Your task to perform on an android device: Open the calendar and show me this week's events? Image 0: 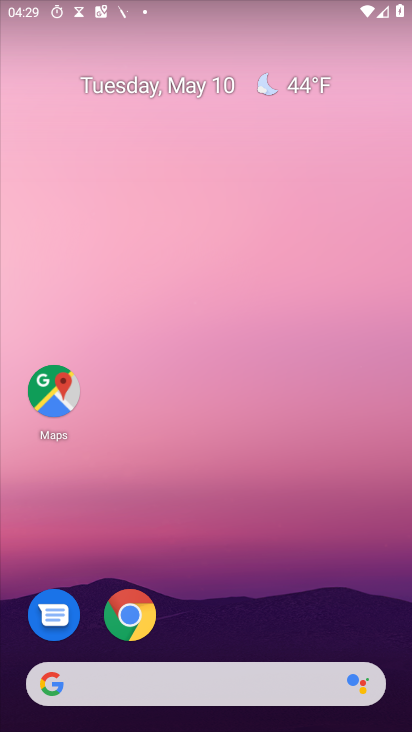
Step 0: drag from (292, 661) to (214, 6)
Your task to perform on an android device: Open the calendar and show me this week's events? Image 1: 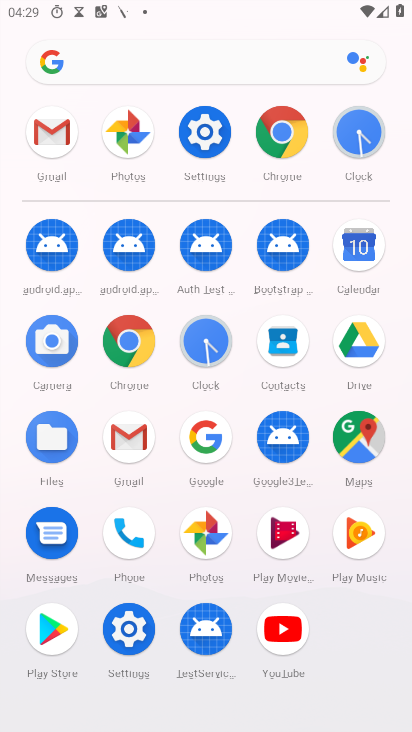
Step 1: click (355, 250)
Your task to perform on an android device: Open the calendar and show me this week's events? Image 2: 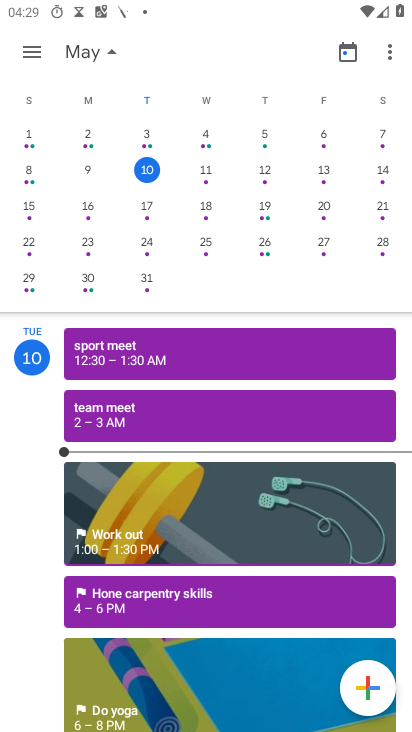
Step 2: click (210, 172)
Your task to perform on an android device: Open the calendar and show me this week's events? Image 3: 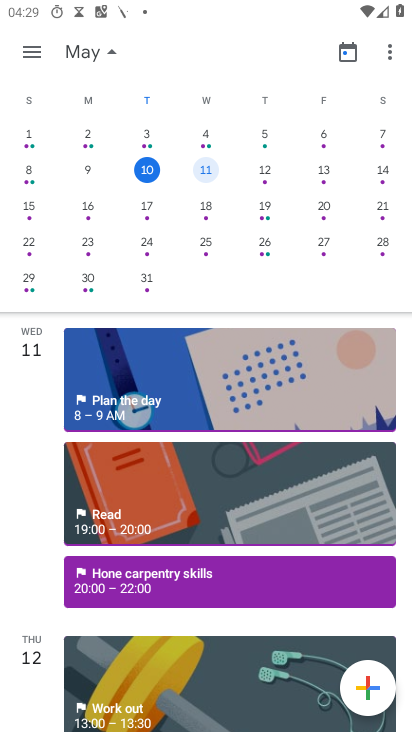
Step 3: click (28, 54)
Your task to perform on an android device: Open the calendar and show me this week's events? Image 4: 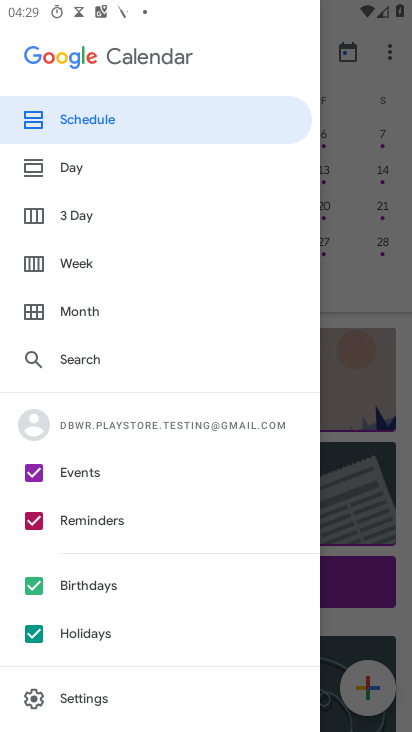
Step 4: click (80, 260)
Your task to perform on an android device: Open the calendar and show me this week's events? Image 5: 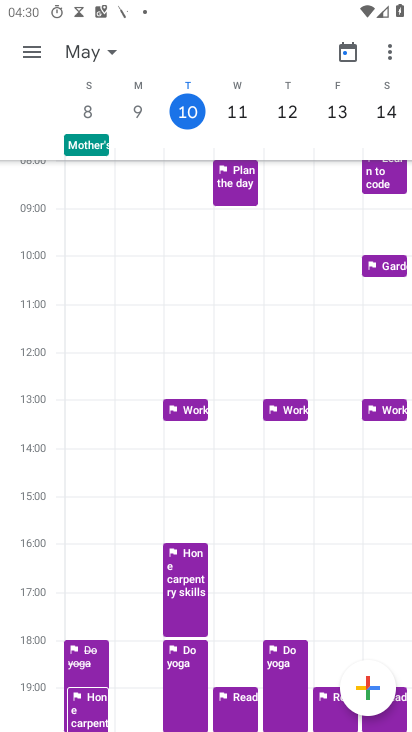
Step 5: task complete